Your task to perform on an android device: Open eBay Image 0: 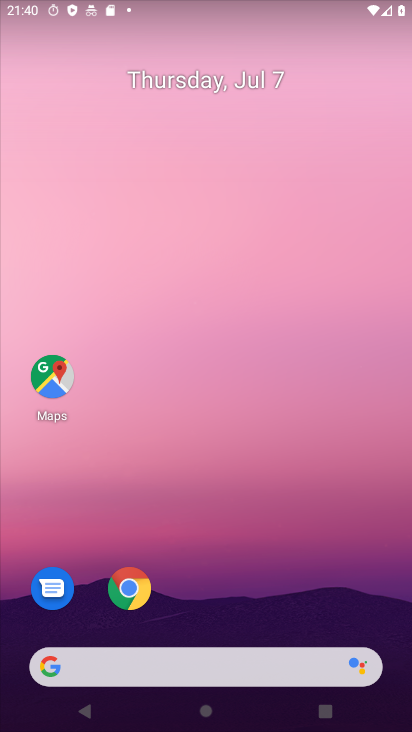
Step 0: drag from (221, 561) to (155, 119)
Your task to perform on an android device: Open eBay Image 1: 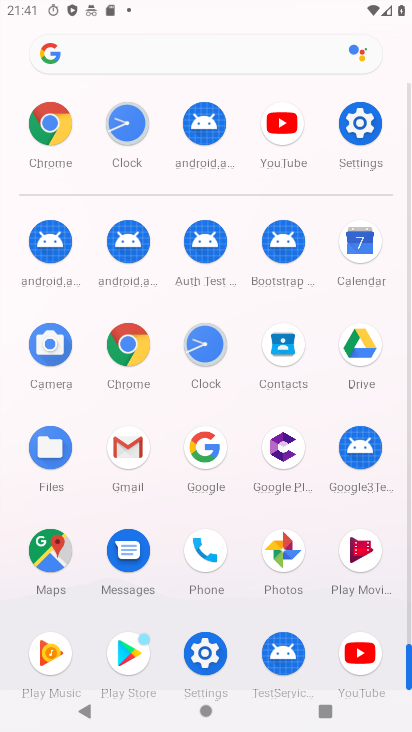
Step 1: click (52, 126)
Your task to perform on an android device: Open eBay Image 2: 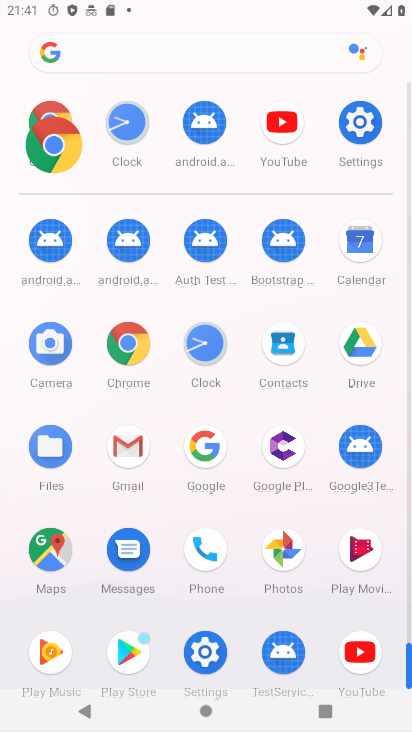
Step 2: click (52, 126)
Your task to perform on an android device: Open eBay Image 3: 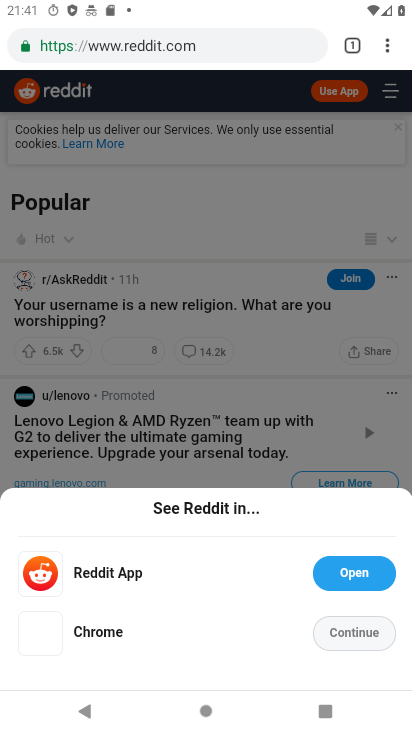
Step 3: click (390, 40)
Your task to perform on an android device: Open eBay Image 4: 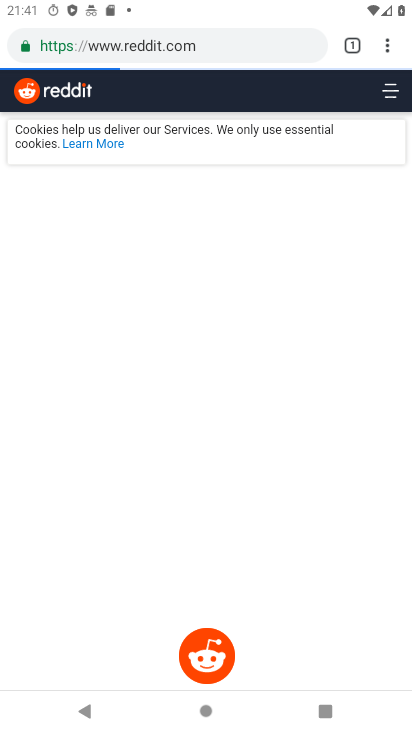
Step 4: drag from (390, 40) to (230, 84)
Your task to perform on an android device: Open eBay Image 5: 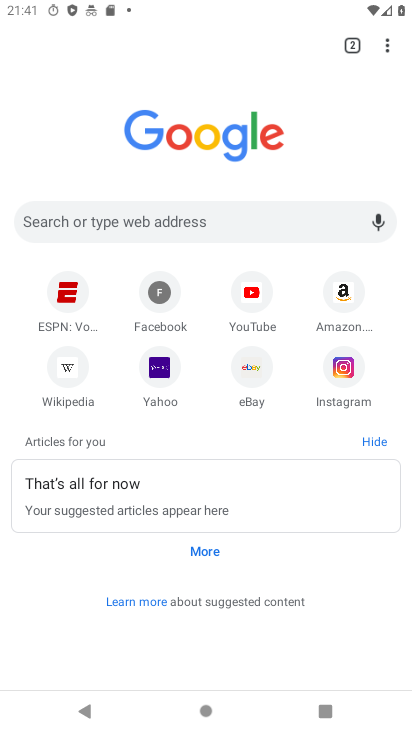
Step 5: click (253, 358)
Your task to perform on an android device: Open eBay Image 6: 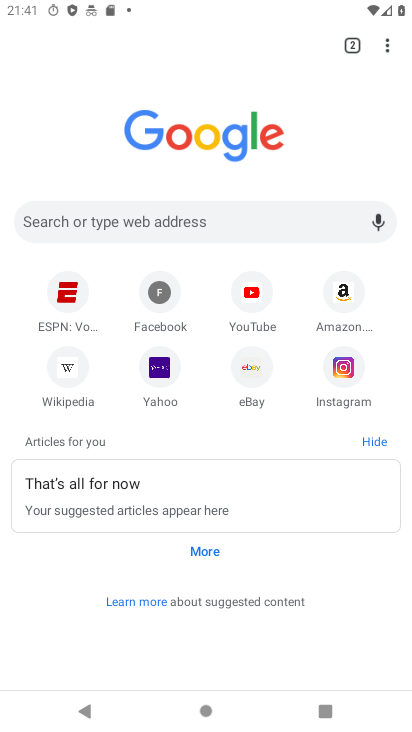
Step 6: click (251, 361)
Your task to perform on an android device: Open eBay Image 7: 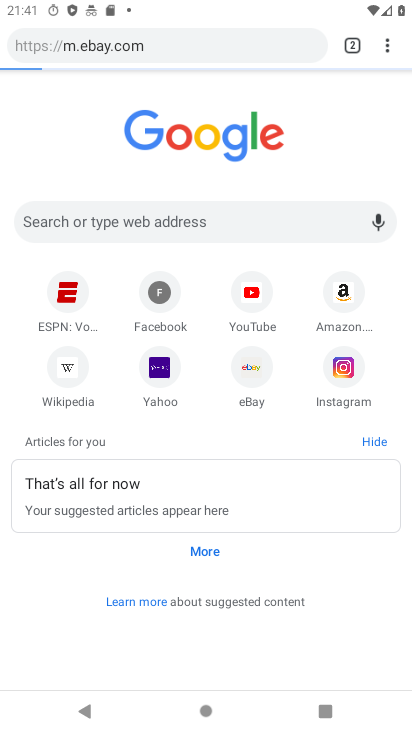
Step 7: click (250, 362)
Your task to perform on an android device: Open eBay Image 8: 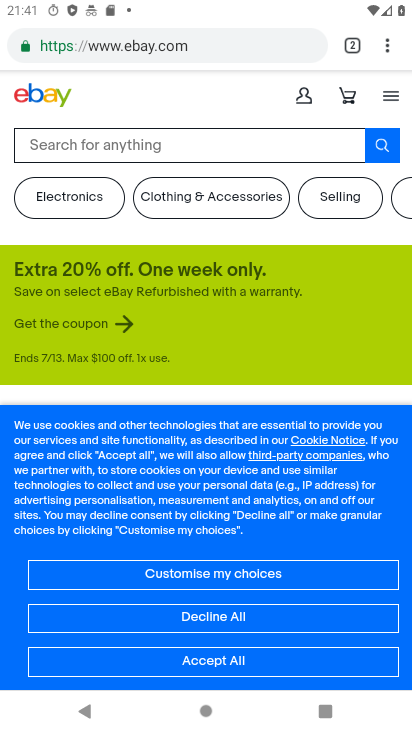
Step 8: task complete